Your task to perform on an android device: find snoozed emails in the gmail app Image 0: 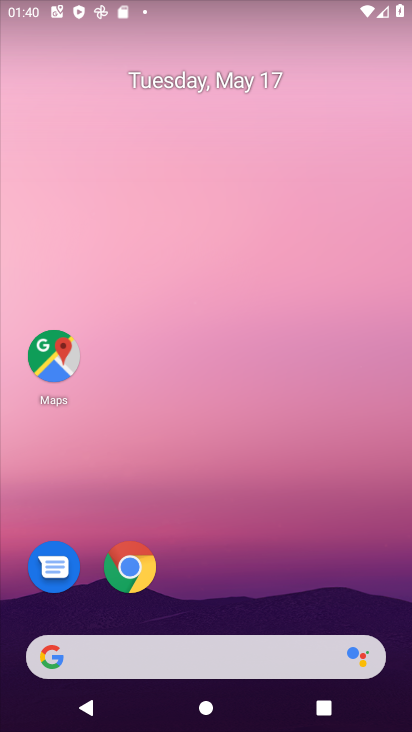
Step 0: drag from (400, 622) to (308, 95)
Your task to perform on an android device: find snoozed emails in the gmail app Image 1: 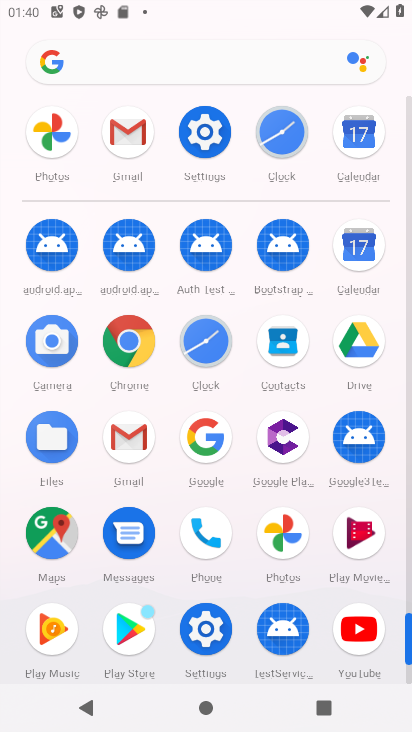
Step 1: click (128, 433)
Your task to perform on an android device: find snoozed emails in the gmail app Image 2: 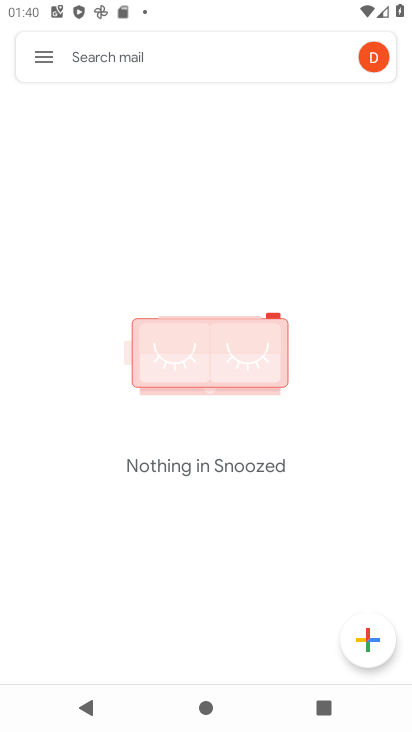
Step 2: click (44, 57)
Your task to perform on an android device: find snoozed emails in the gmail app Image 3: 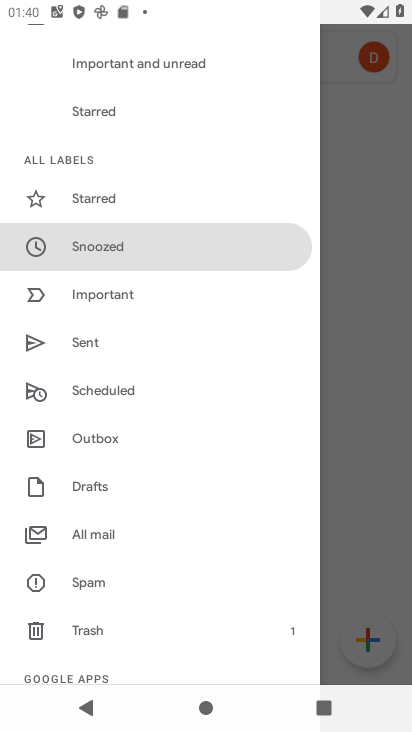
Step 3: click (127, 239)
Your task to perform on an android device: find snoozed emails in the gmail app Image 4: 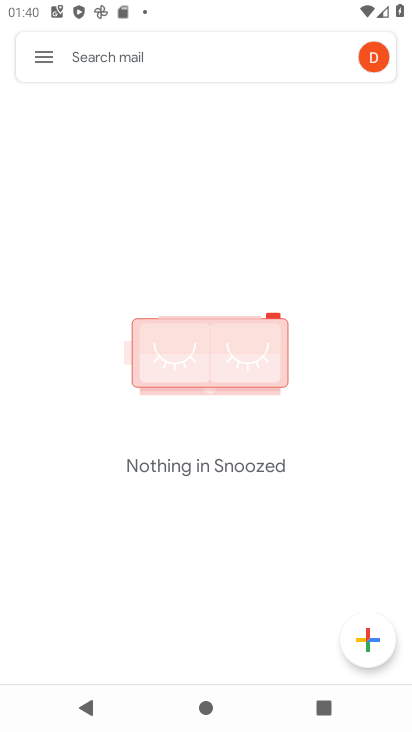
Step 4: task complete